Your task to perform on an android device: check storage Image 0: 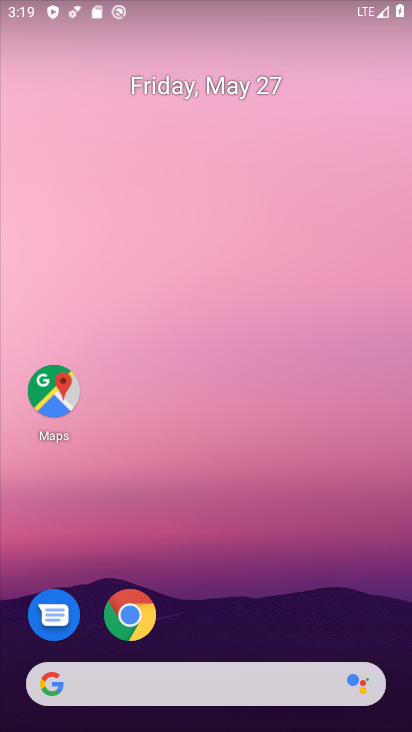
Step 0: drag from (205, 673) to (315, 267)
Your task to perform on an android device: check storage Image 1: 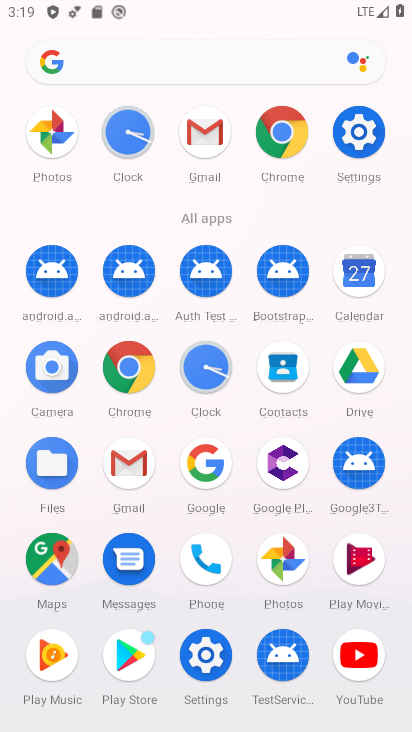
Step 1: click (364, 127)
Your task to perform on an android device: check storage Image 2: 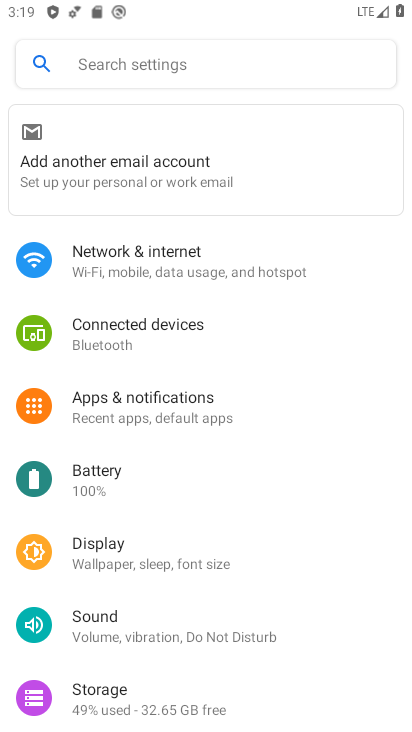
Step 2: click (115, 689)
Your task to perform on an android device: check storage Image 3: 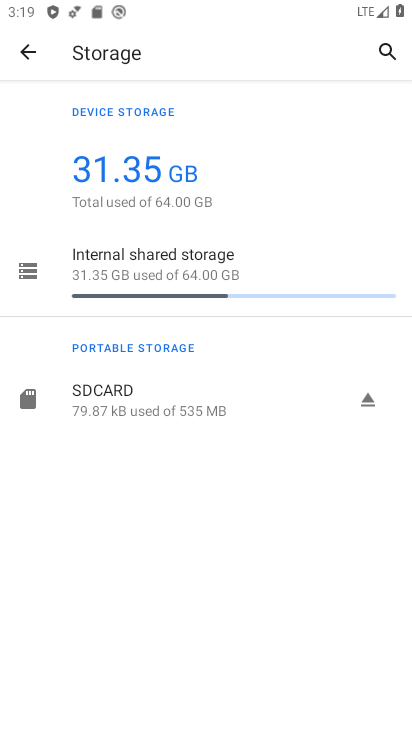
Step 3: task complete